Your task to perform on an android device: What is the recent news? Image 0: 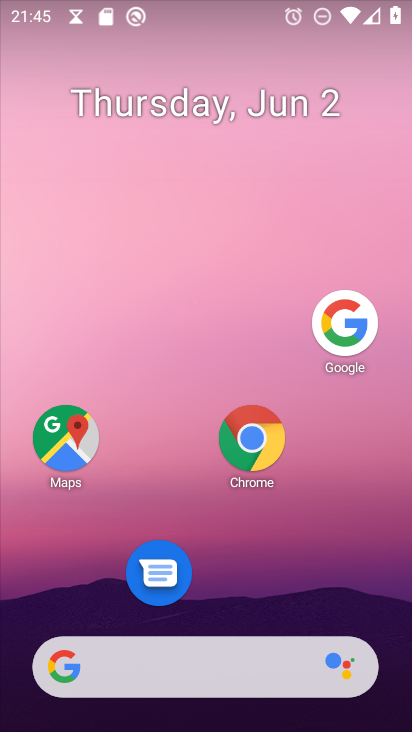
Step 0: press home button
Your task to perform on an android device: What is the recent news? Image 1: 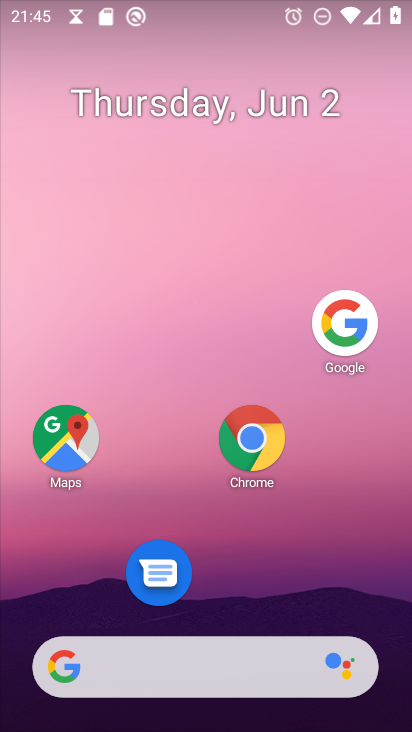
Step 1: click (75, 669)
Your task to perform on an android device: What is the recent news? Image 2: 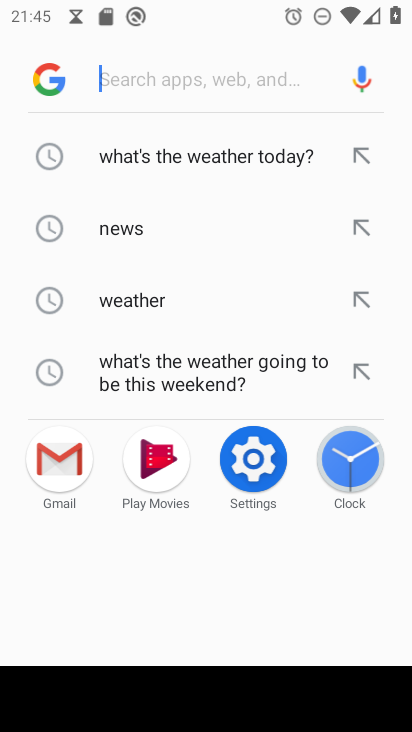
Step 2: click (132, 227)
Your task to perform on an android device: What is the recent news? Image 3: 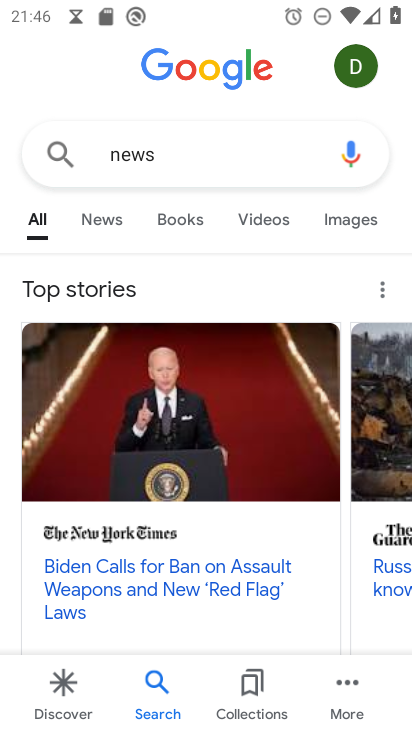
Step 3: click (101, 215)
Your task to perform on an android device: What is the recent news? Image 4: 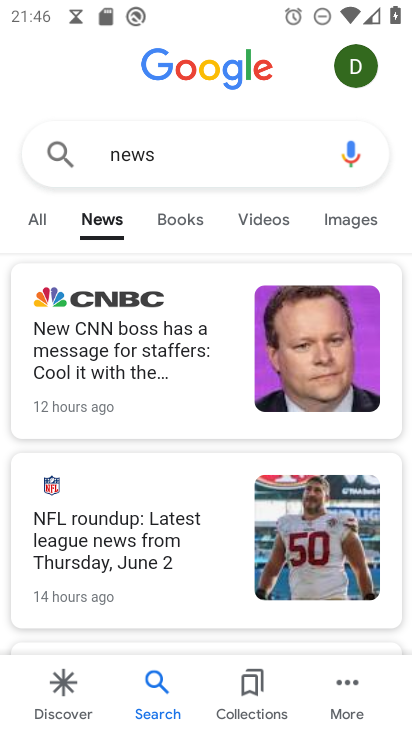
Step 4: task complete